Your task to perform on an android device: Open the phone app and click the voicemail tab. Image 0: 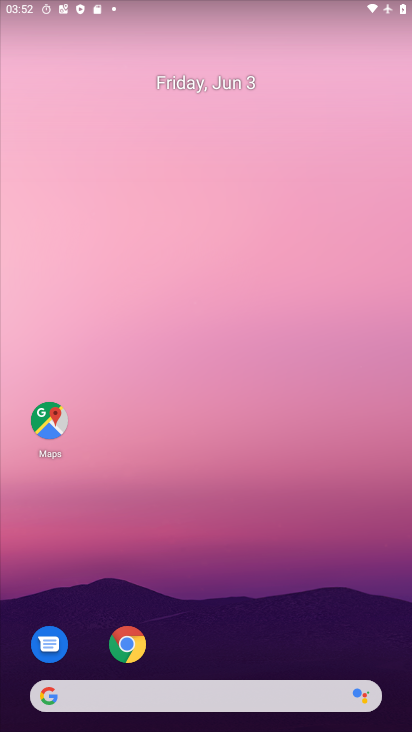
Step 0: drag from (247, 645) to (213, 223)
Your task to perform on an android device: Open the phone app and click the voicemail tab. Image 1: 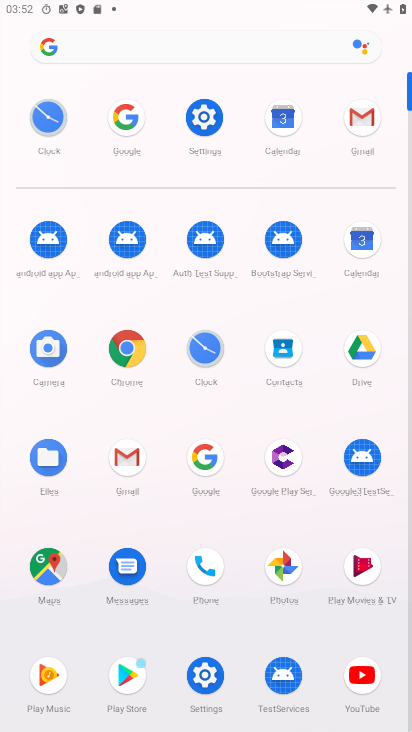
Step 1: click (208, 575)
Your task to perform on an android device: Open the phone app and click the voicemail tab. Image 2: 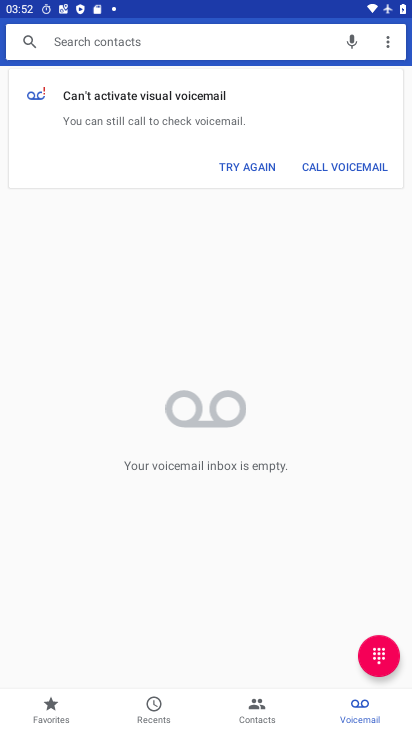
Step 2: click (364, 706)
Your task to perform on an android device: Open the phone app and click the voicemail tab. Image 3: 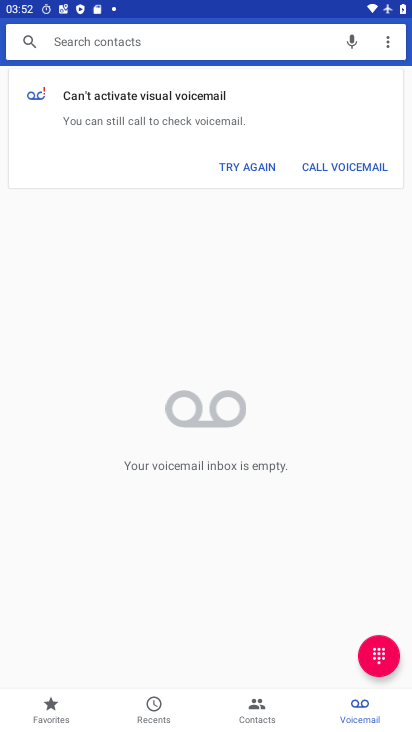
Step 3: task complete